Your task to perform on an android device: Go to Wikipedia Image 0: 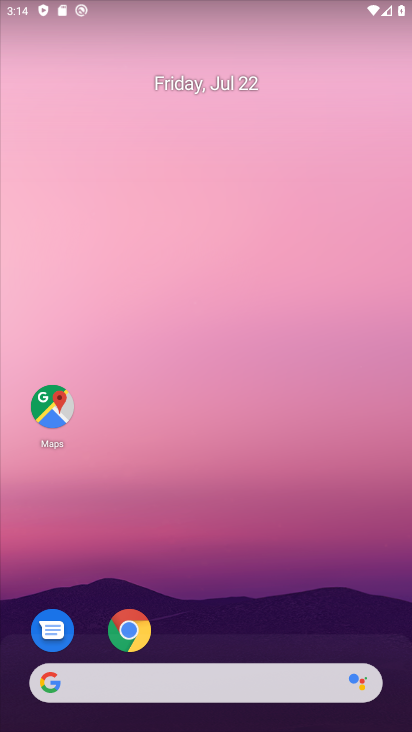
Step 0: click (132, 641)
Your task to perform on an android device: Go to Wikipedia Image 1: 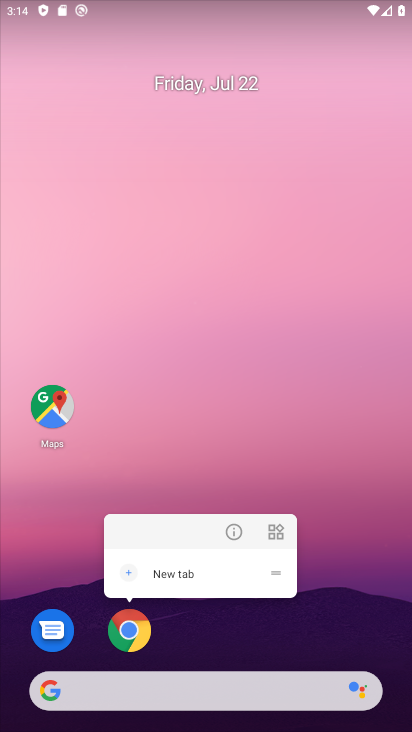
Step 1: click (136, 632)
Your task to perform on an android device: Go to Wikipedia Image 2: 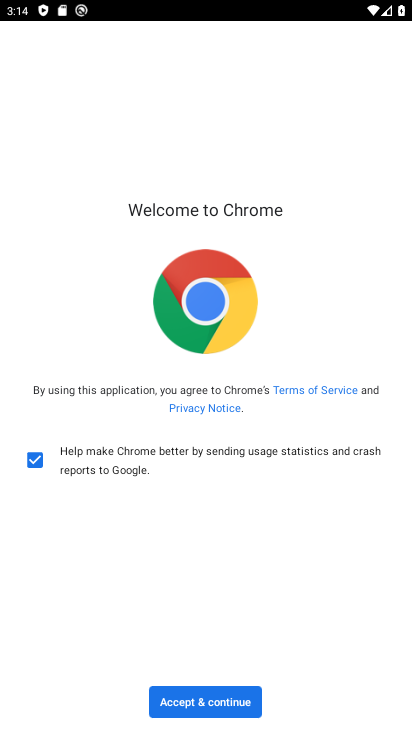
Step 2: click (226, 714)
Your task to perform on an android device: Go to Wikipedia Image 3: 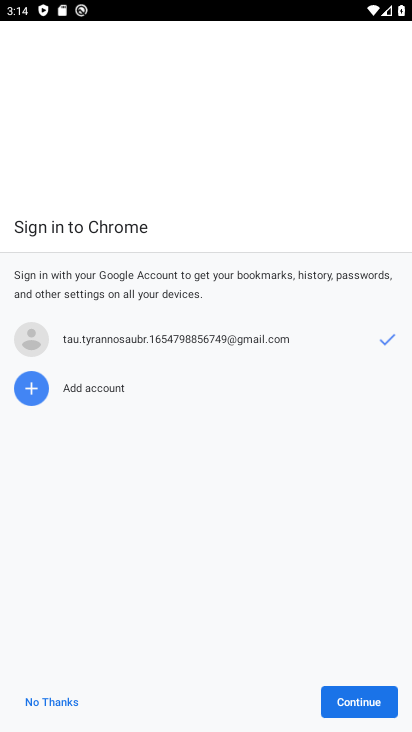
Step 3: click (377, 703)
Your task to perform on an android device: Go to Wikipedia Image 4: 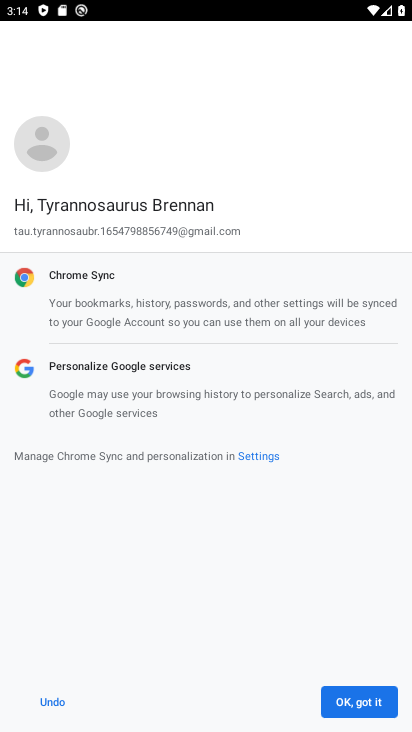
Step 4: click (377, 704)
Your task to perform on an android device: Go to Wikipedia Image 5: 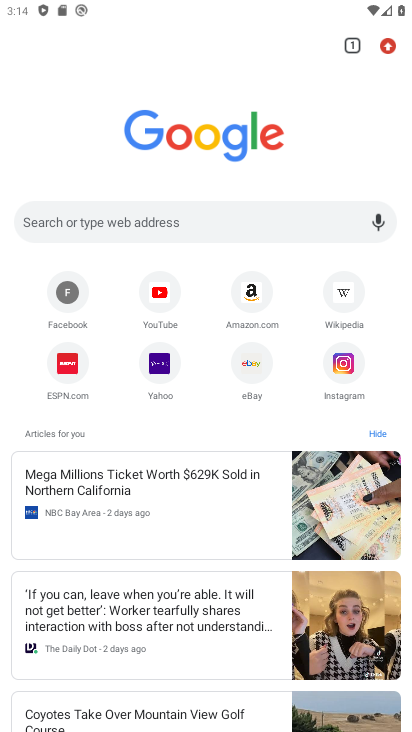
Step 5: click (350, 291)
Your task to perform on an android device: Go to Wikipedia Image 6: 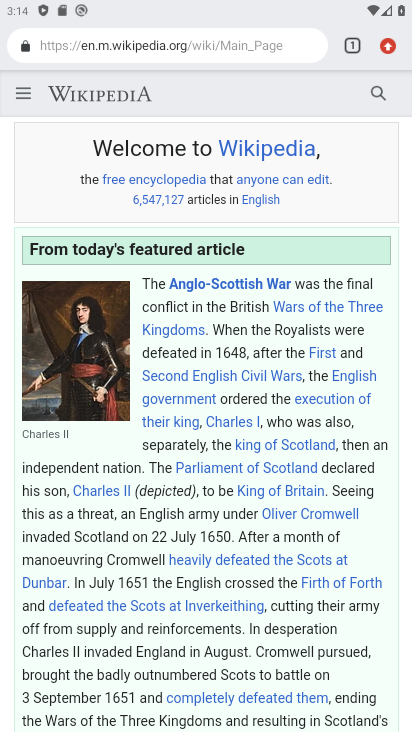
Step 6: task complete